Your task to perform on an android device: Open display settings Image 0: 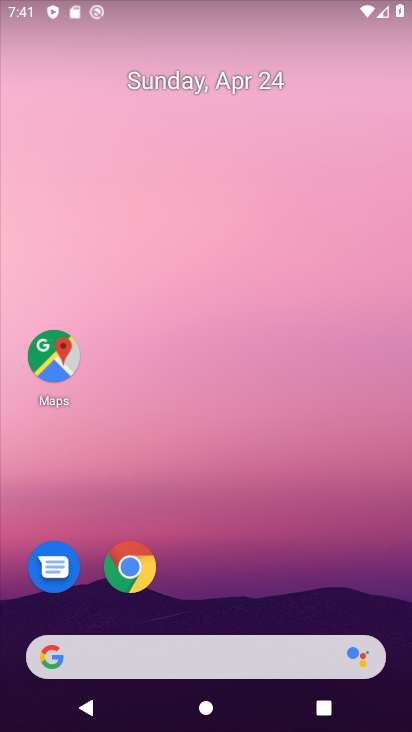
Step 0: drag from (292, 622) to (191, 0)
Your task to perform on an android device: Open display settings Image 1: 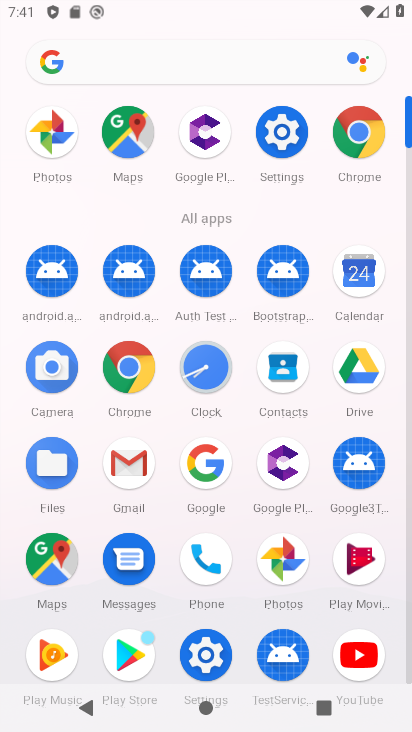
Step 1: click (219, 646)
Your task to perform on an android device: Open display settings Image 2: 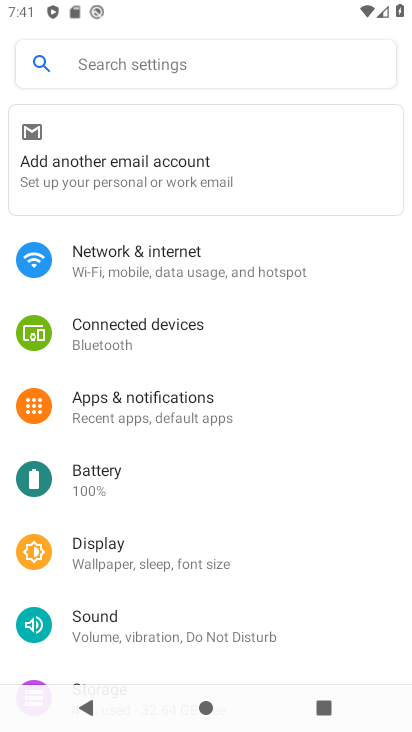
Step 2: click (119, 552)
Your task to perform on an android device: Open display settings Image 3: 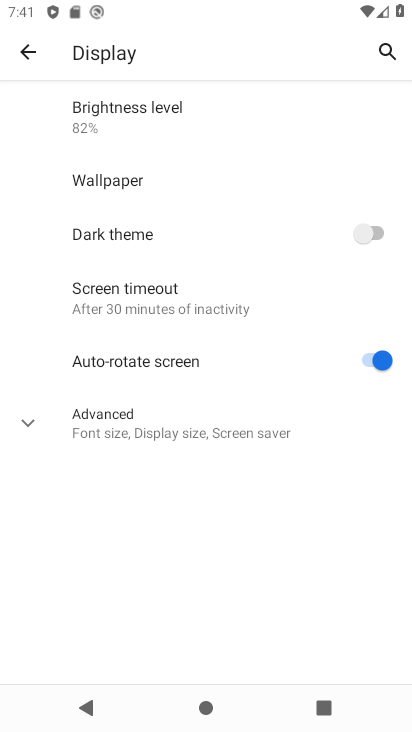
Step 3: task complete